Your task to perform on an android device: Go to accessibility settings Image 0: 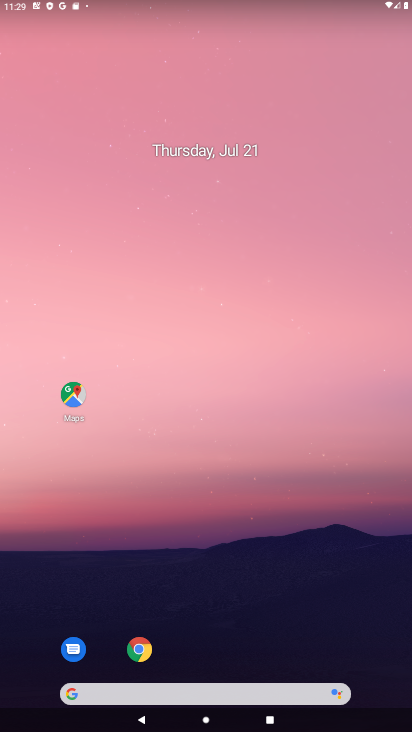
Step 0: drag from (231, 725) to (233, 290)
Your task to perform on an android device: Go to accessibility settings Image 1: 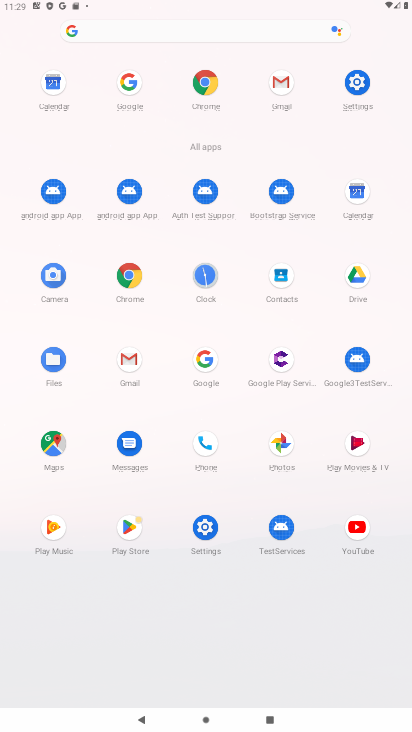
Step 1: click (360, 87)
Your task to perform on an android device: Go to accessibility settings Image 2: 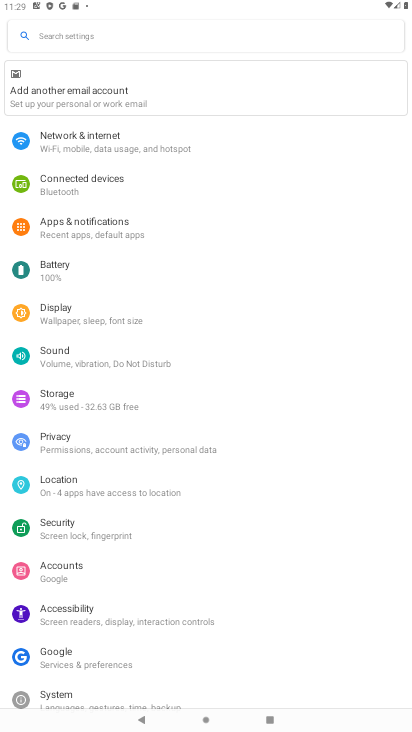
Step 2: click (76, 600)
Your task to perform on an android device: Go to accessibility settings Image 3: 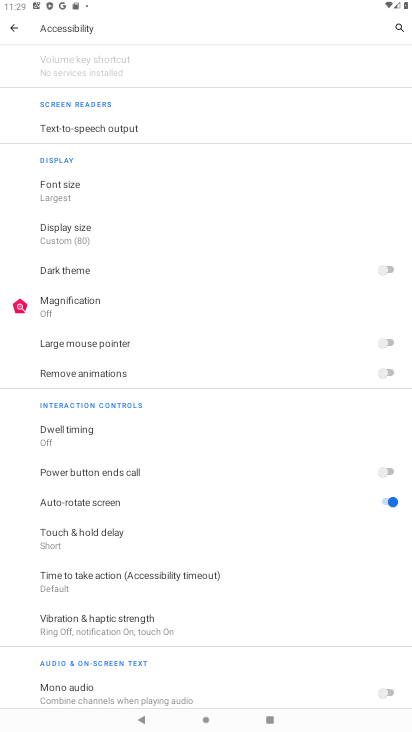
Step 3: task complete